Your task to perform on an android device: toggle improve location accuracy Image 0: 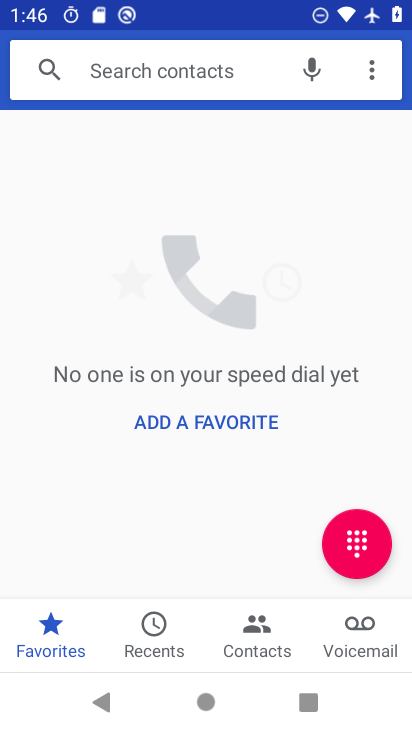
Step 0: press home button
Your task to perform on an android device: toggle improve location accuracy Image 1: 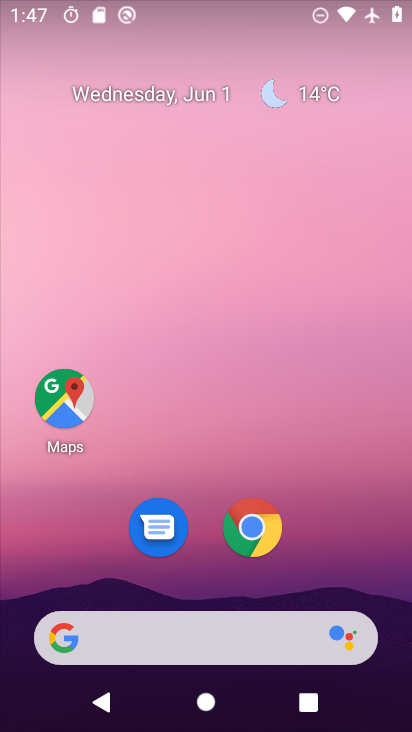
Step 1: drag from (186, 453) to (199, 202)
Your task to perform on an android device: toggle improve location accuracy Image 2: 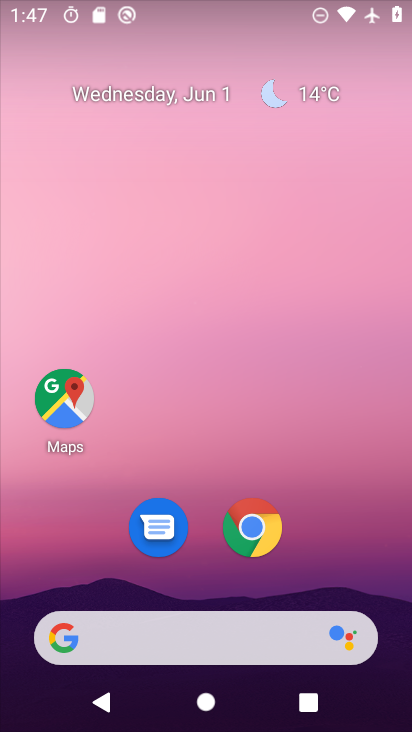
Step 2: drag from (201, 615) to (236, 127)
Your task to perform on an android device: toggle improve location accuracy Image 3: 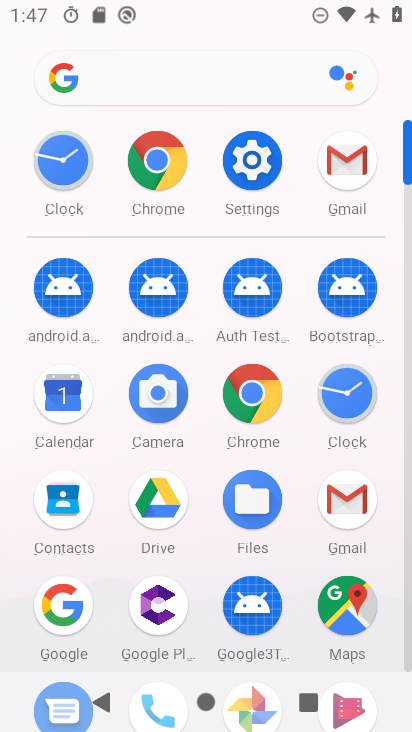
Step 3: click (261, 187)
Your task to perform on an android device: toggle improve location accuracy Image 4: 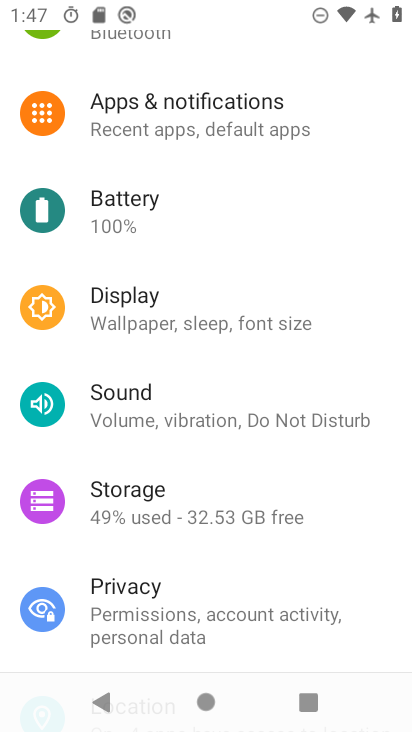
Step 4: drag from (170, 390) to (193, 239)
Your task to perform on an android device: toggle improve location accuracy Image 5: 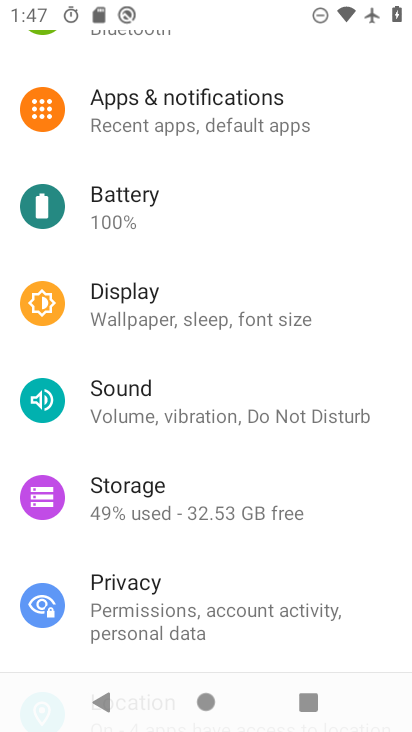
Step 5: drag from (183, 526) to (186, 243)
Your task to perform on an android device: toggle improve location accuracy Image 6: 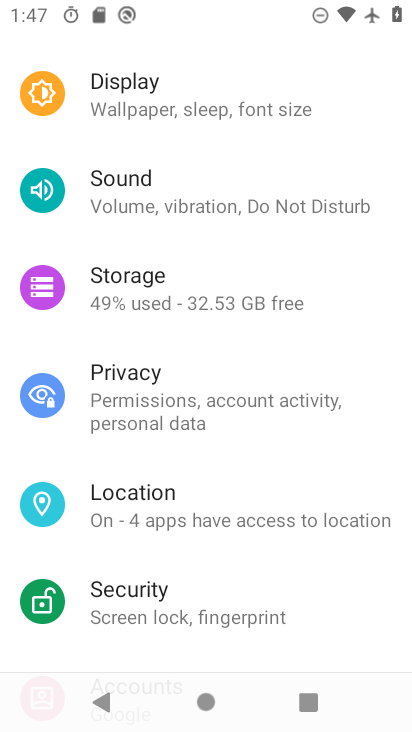
Step 6: drag from (189, 452) to (209, 329)
Your task to perform on an android device: toggle improve location accuracy Image 7: 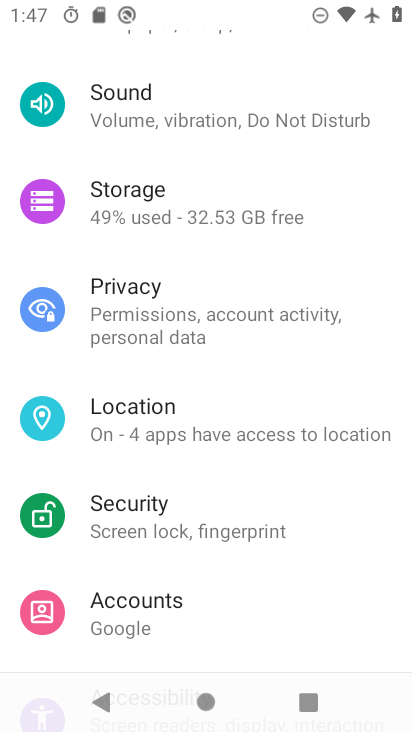
Step 7: click (181, 430)
Your task to perform on an android device: toggle improve location accuracy Image 8: 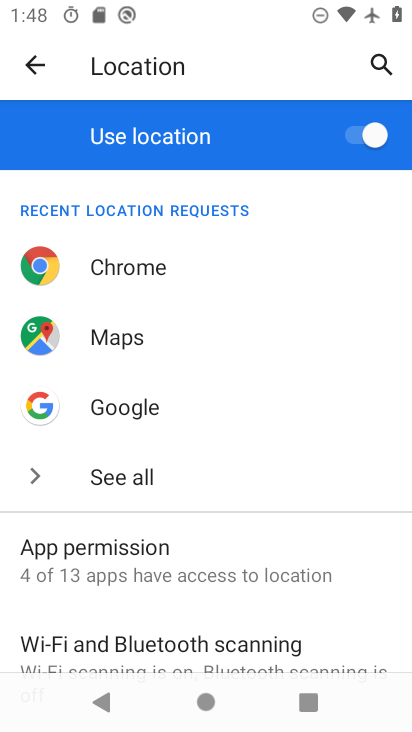
Step 8: drag from (201, 557) to (262, 273)
Your task to perform on an android device: toggle improve location accuracy Image 9: 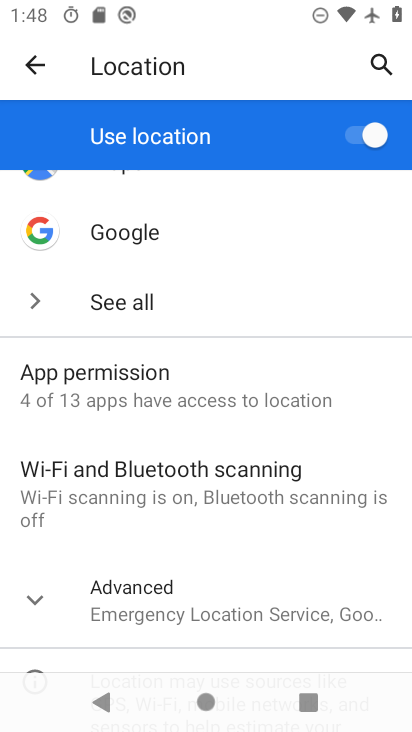
Step 9: click (188, 615)
Your task to perform on an android device: toggle improve location accuracy Image 10: 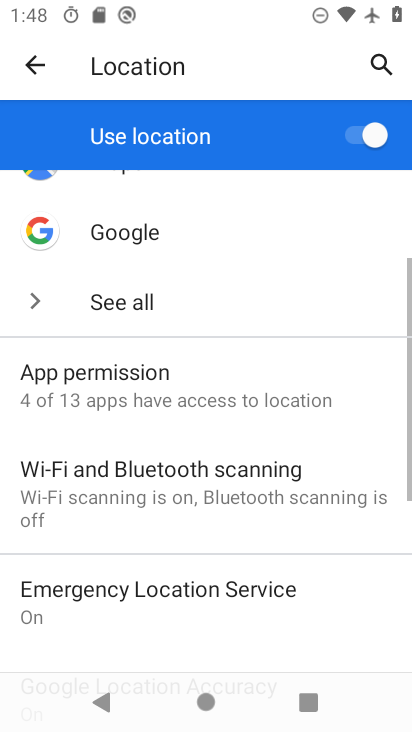
Step 10: drag from (187, 511) to (229, 222)
Your task to perform on an android device: toggle improve location accuracy Image 11: 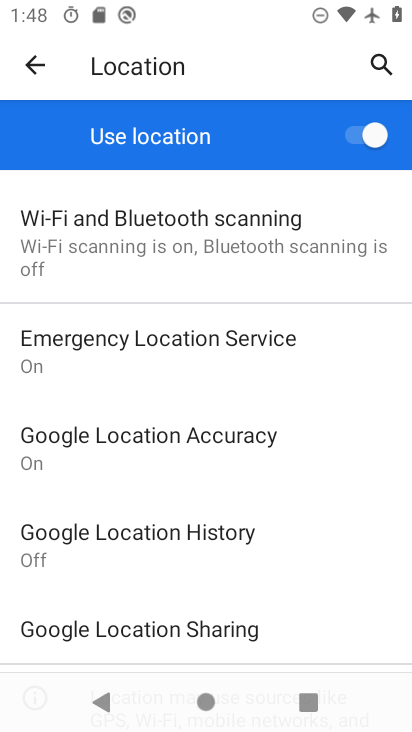
Step 11: click (247, 456)
Your task to perform on an android device: toggle improve location accuracy Image 12: 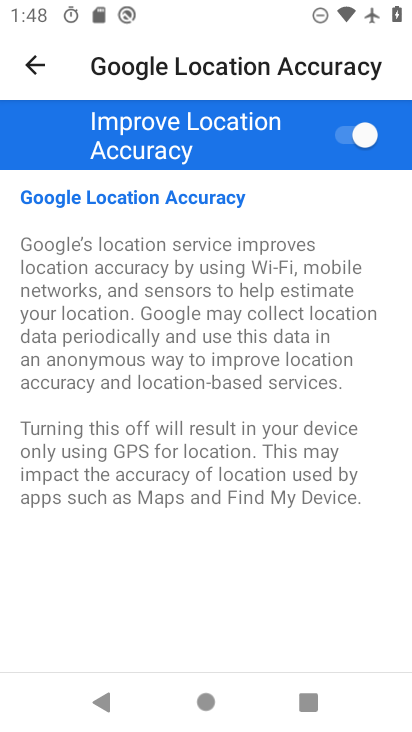
Step 12: click (335, 152)
Your task to perform on an android device: toggle improve location accuracy Image 13: 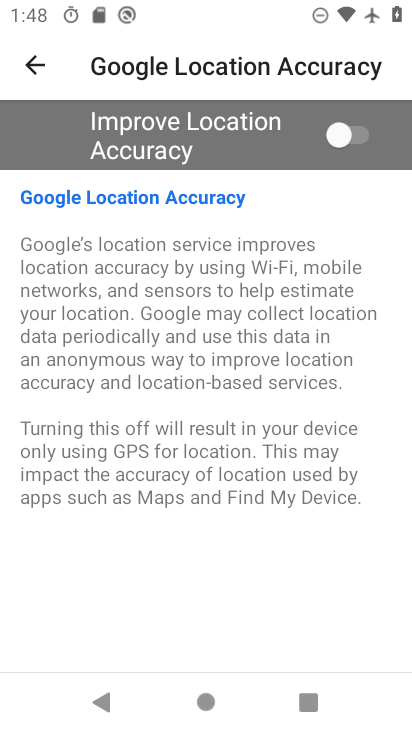
Step 13: task complete